Your task to perform on an android device: Open settings Image 0: 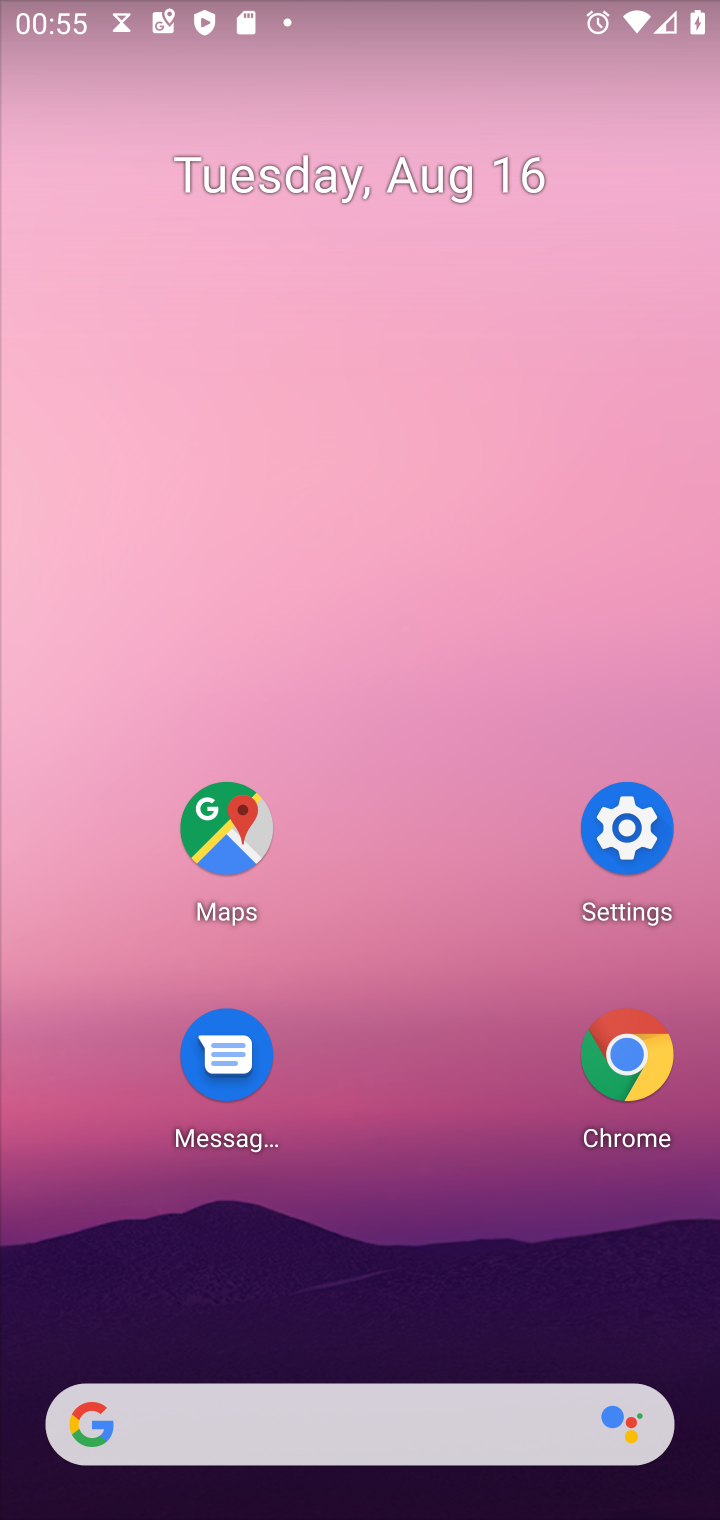
Step 0: press home button
Your task to perform on an android device: Open settings Image 1: 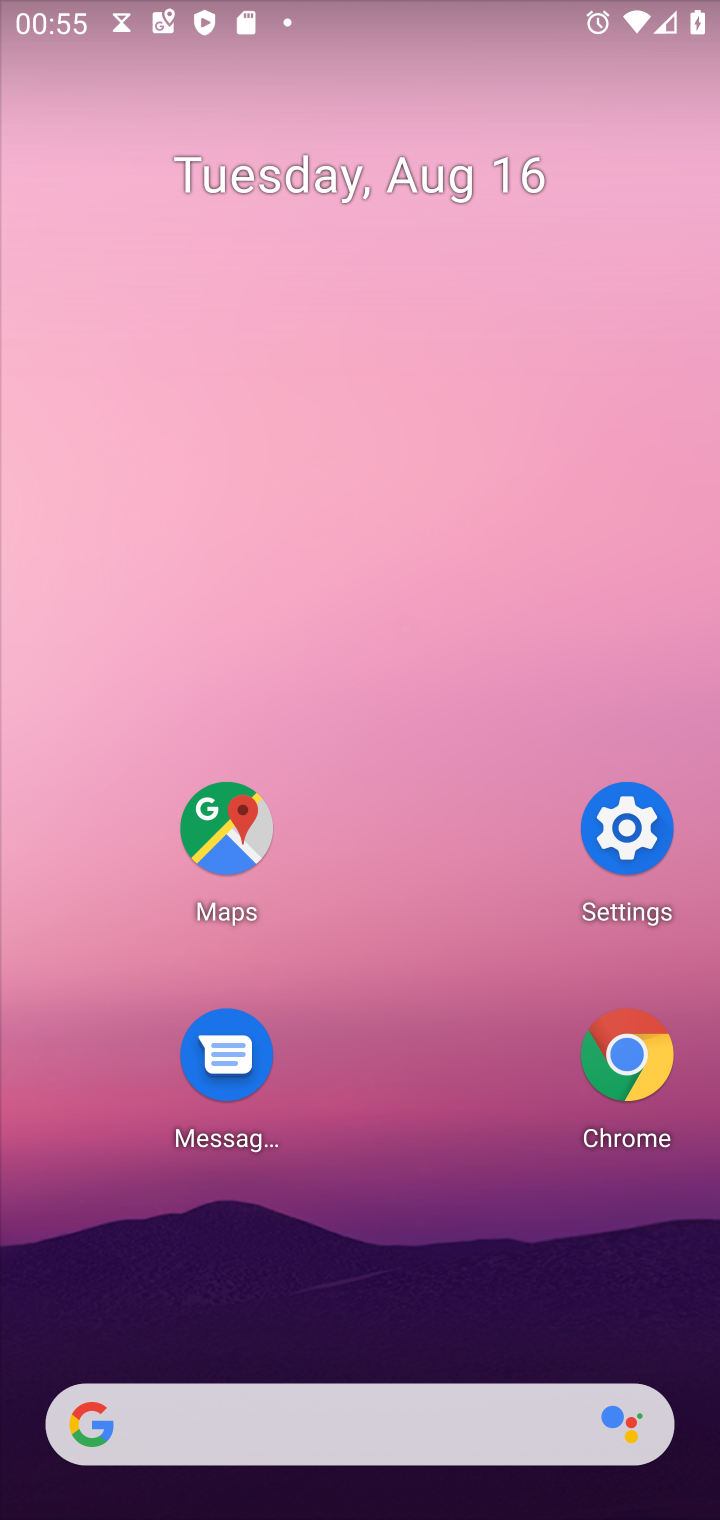
Step 1: click (634, 810)
Your task to perform on an android device: Open settings Image 2: 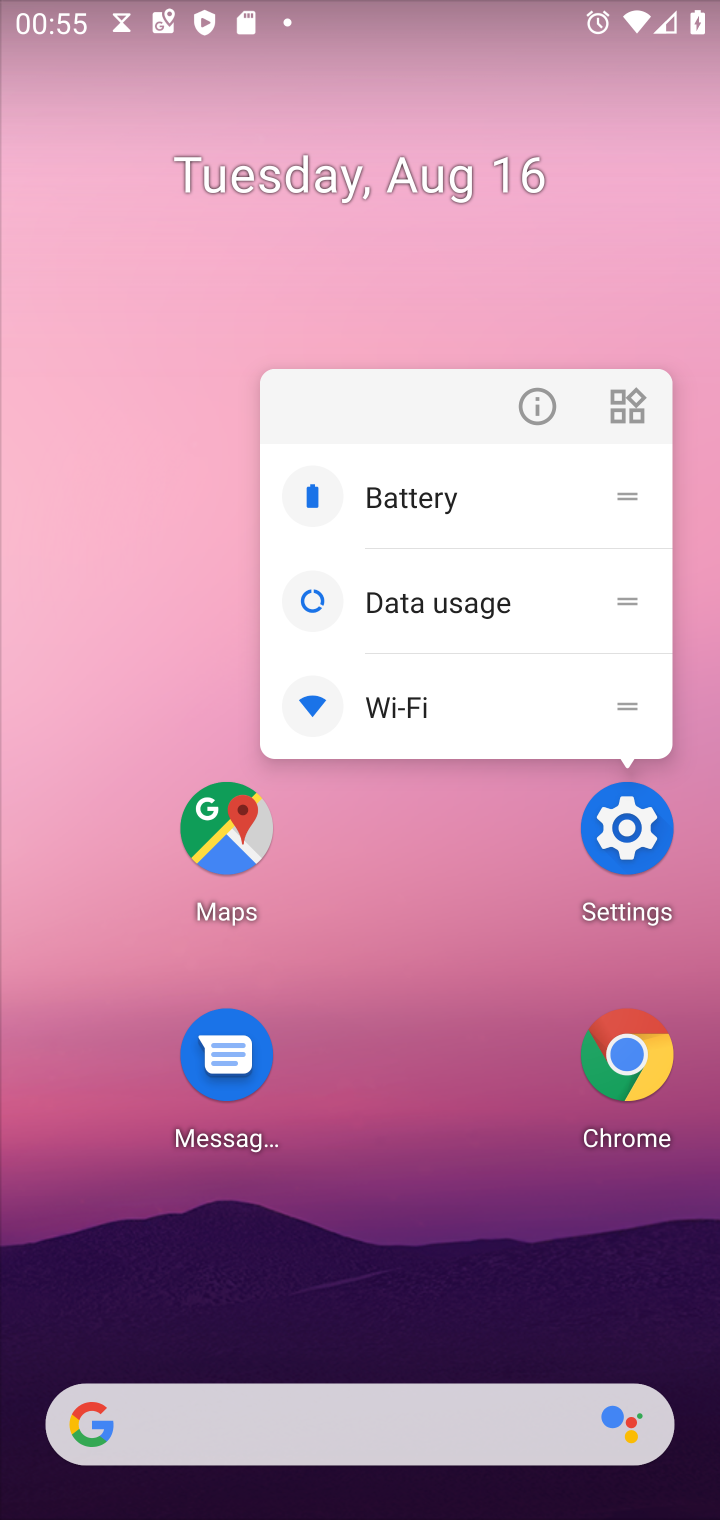
Step 2: click (624, 833)
Your task to perform on an android device: Open settings Image 3: 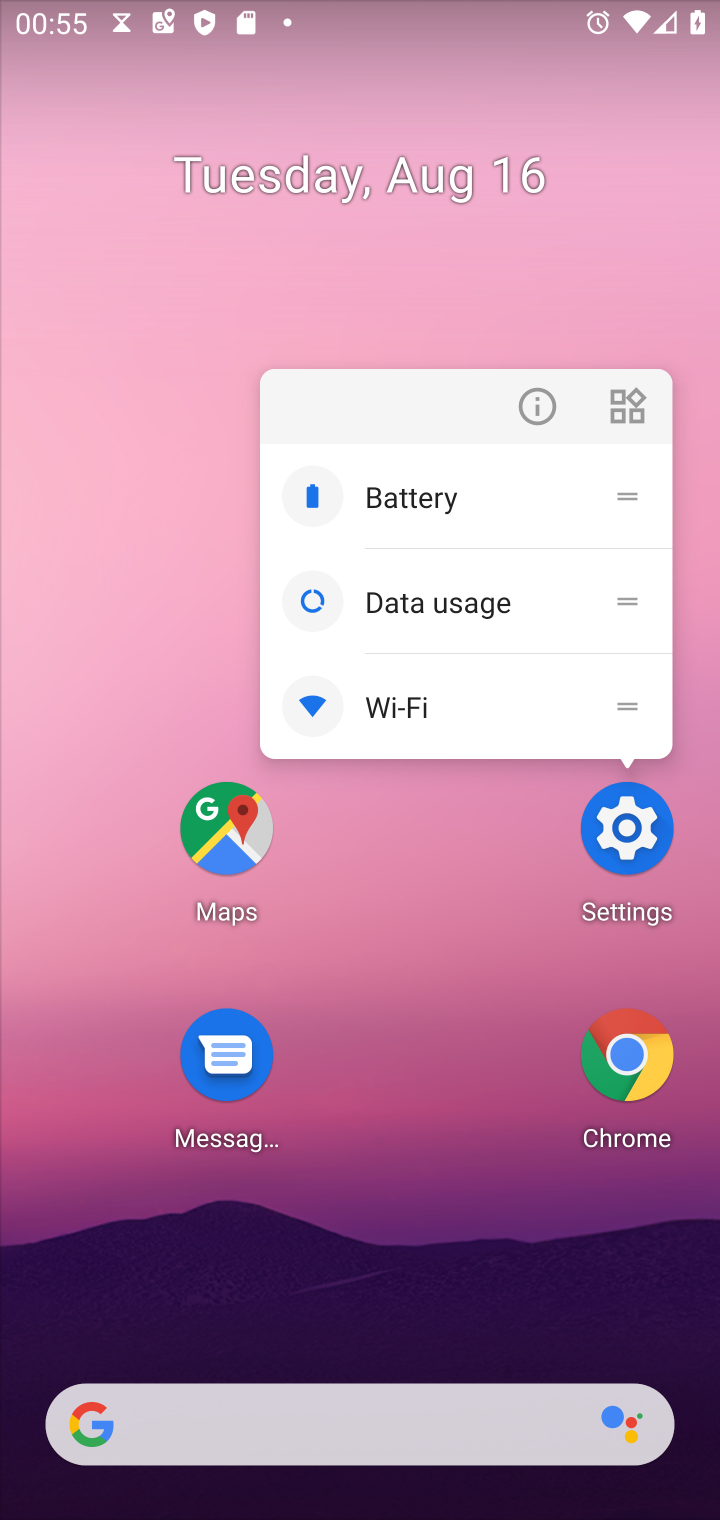
Step 3: click (624, 831)
Your task to perform on an android device: Open settings Image 4: 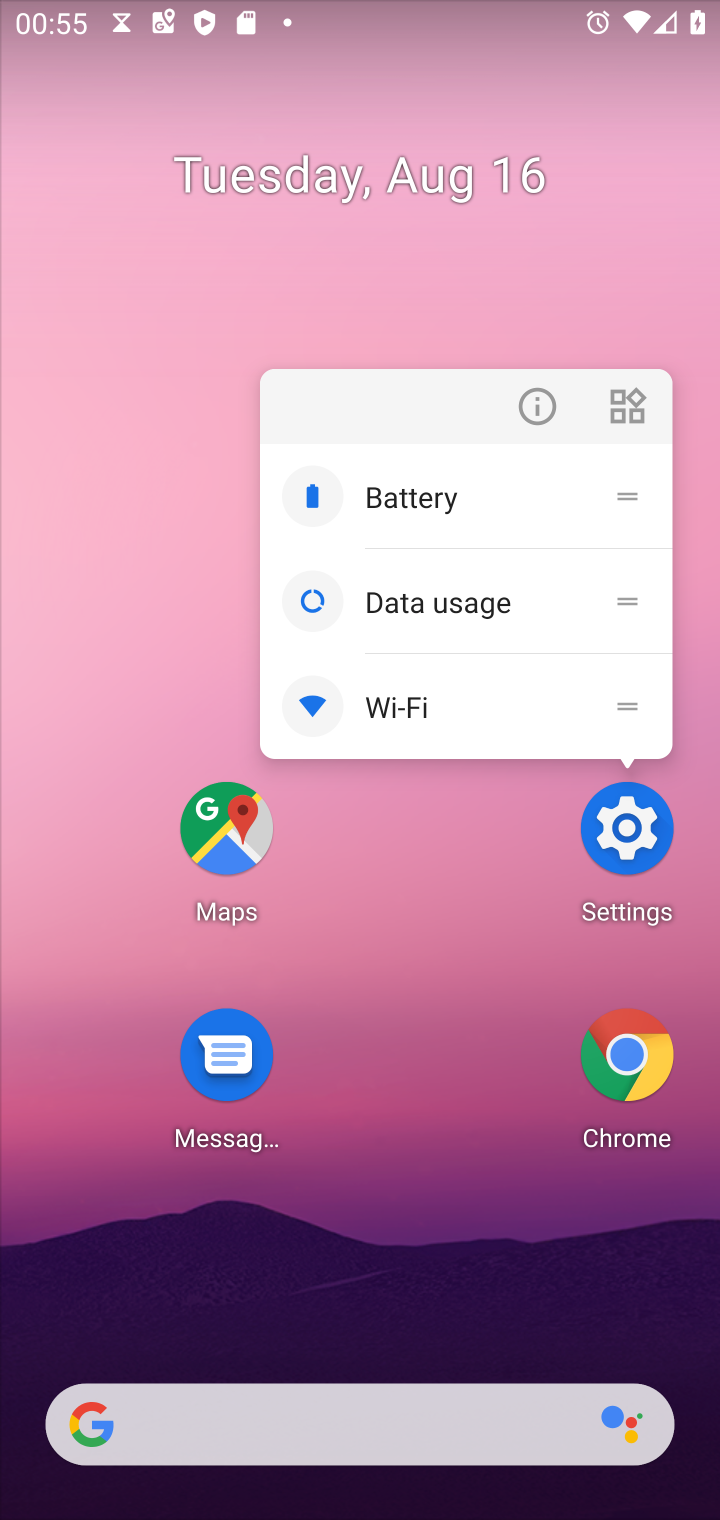
Step 4: click (624, 842)
Your task to perform on an android device: Open settings Image 5: 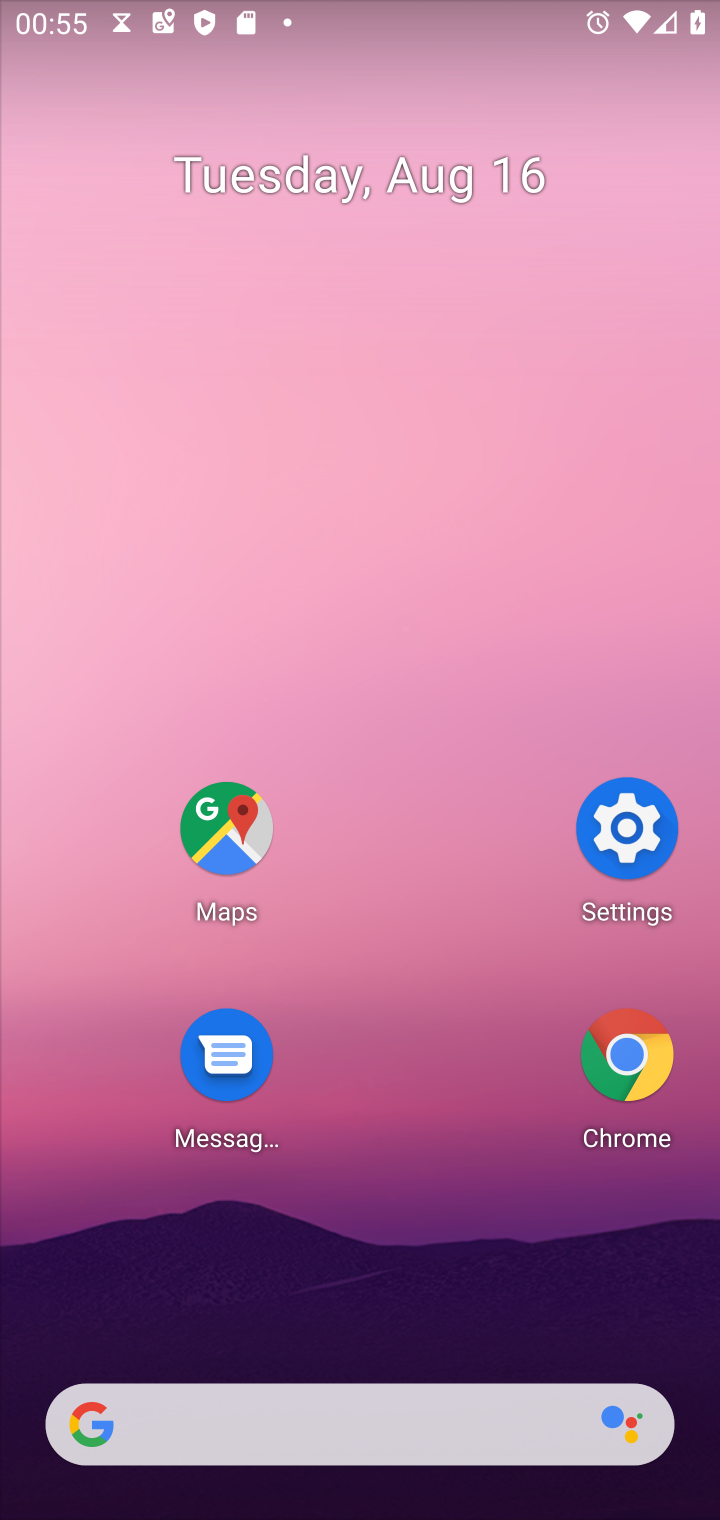
Step 5: click (624, 842)
Your task to perform on an android device: Open settings Image 6: 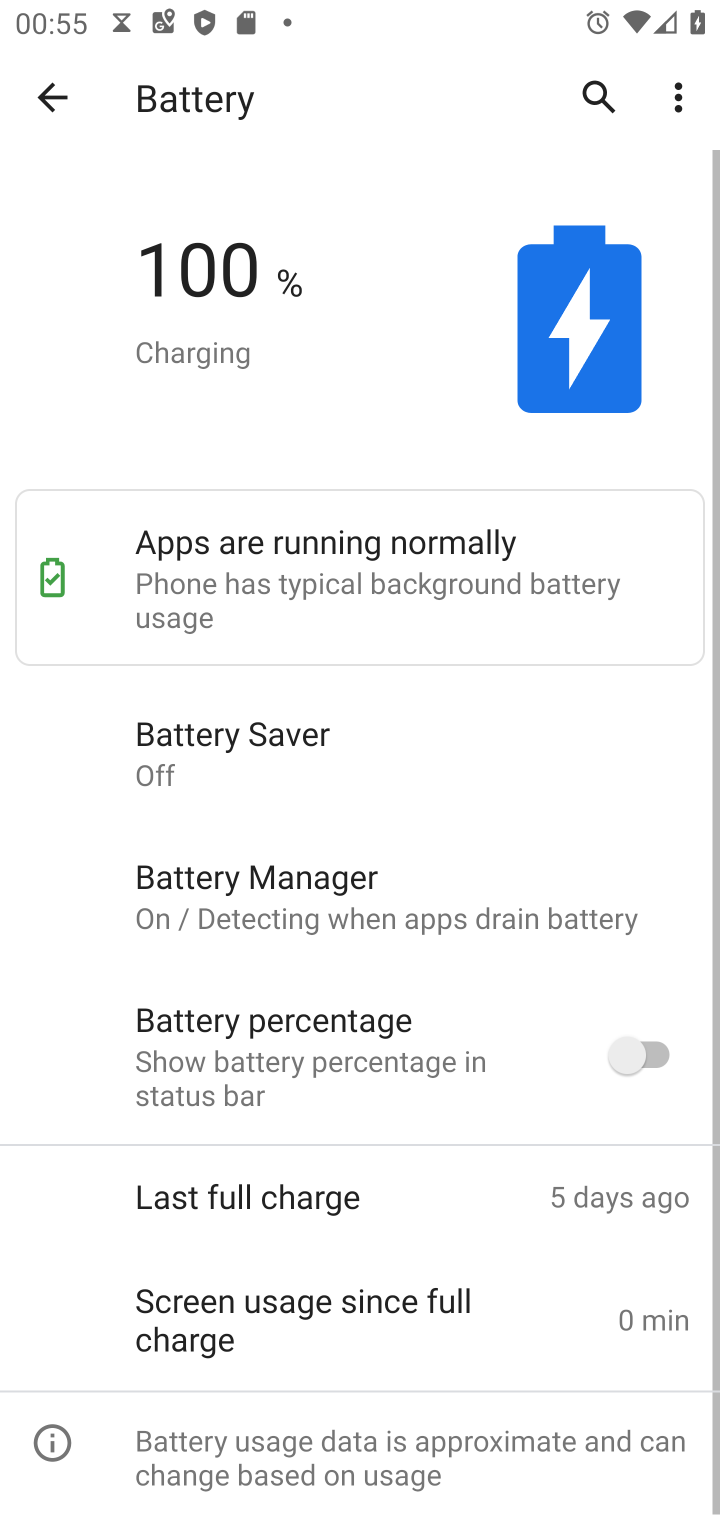
Step 6: task complete